Your task to perform on an android device: Go to wifi settings Image 0: 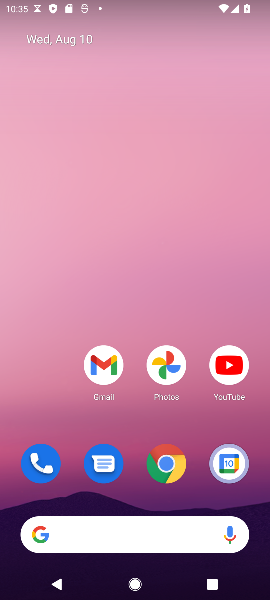
Step 0: drag from (21, 571) to (161, 159)
Your task to perform on an android device: Go to wifi settings Image 1: 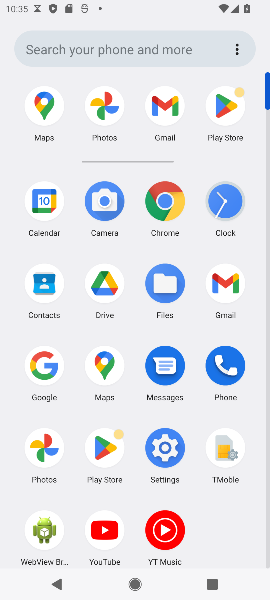
Step 1: click (168, 442)
Your task to perform on an android device: Go to wifi settings Image 2: 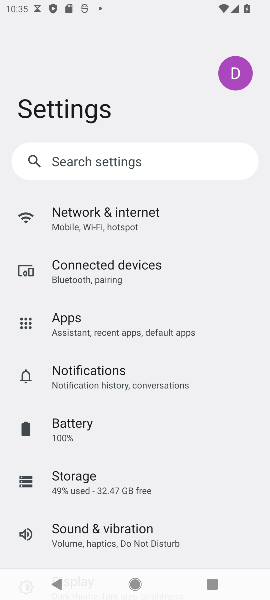
Step 2: click (121, 222)
Your task to perform on an android device: Go to wifi settings Image 3: 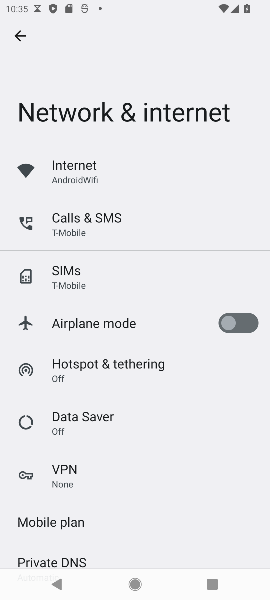
Step 3: click (81, 167)
Your task to perform on an android device: Go to wifi settings Image 4: 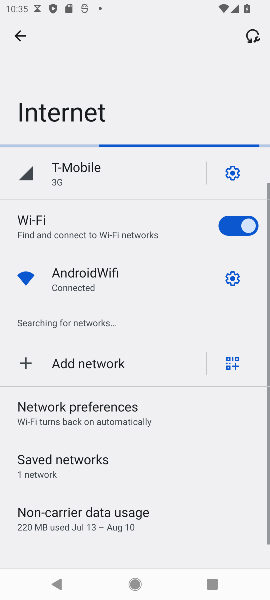
Step 4: task complete